Your task to perform on an android device: What's the weather? Image 0: 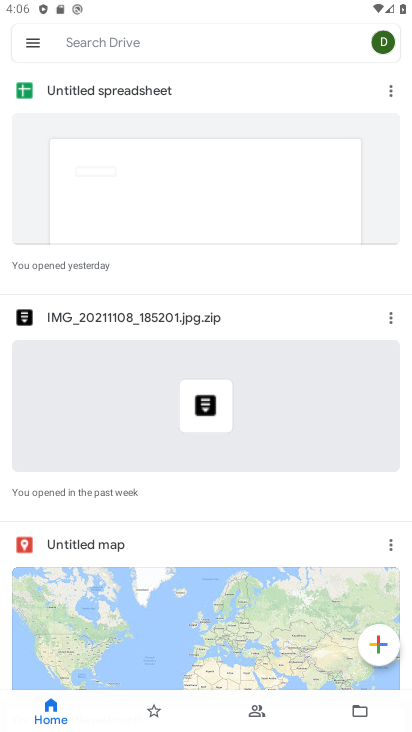
Step 0: press home button
Your task to perform on an android device: What's the weather? Image 1: 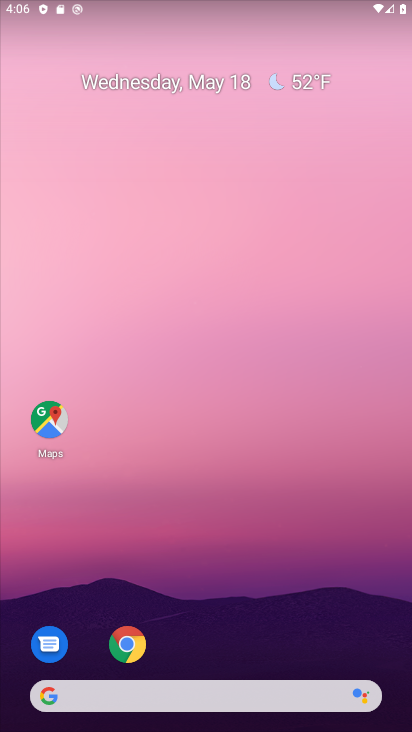
Step 1: click (245, 696)
Your task to perform on an android device: What's the weather? Image 2: 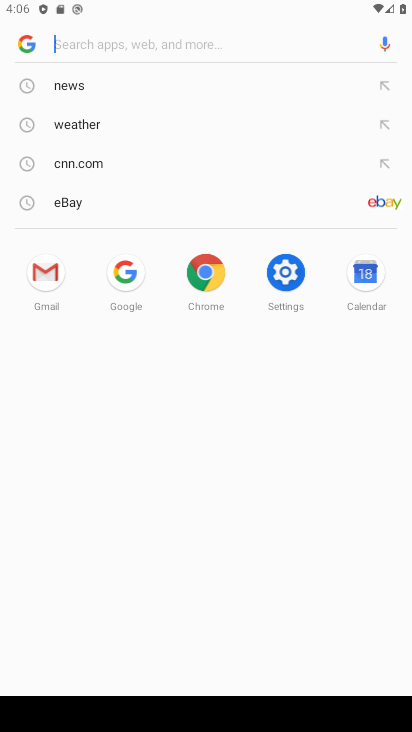
Step 2: click (56, 124)
Your task to perform on an android device: What's the weather? Image 3: 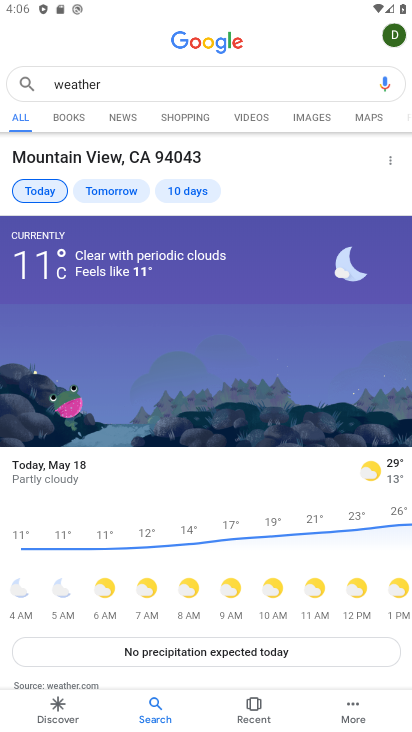
Step 3: press back button
Your task to perform on an android device: What's the weather? Image 4: 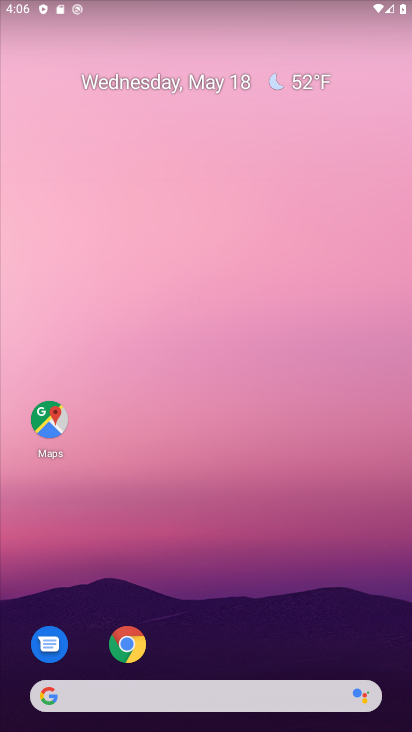
Step 4: click (154, 695)
Your task to perform on an android device: What's the weather? Image 5: 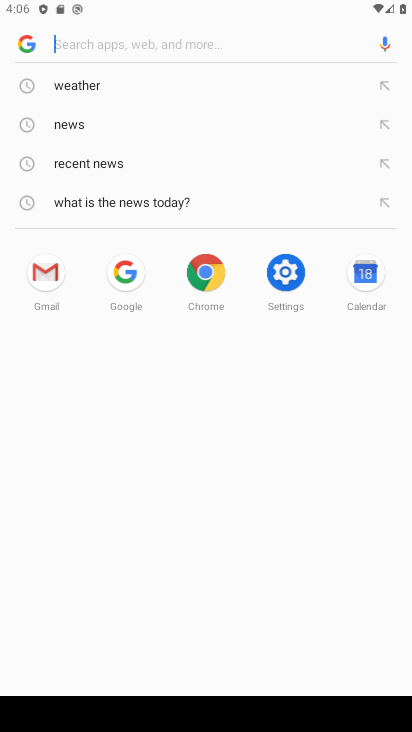
Step 5: click (107, 83)
Your task to perform on an android device: What's the weather? Image 6: 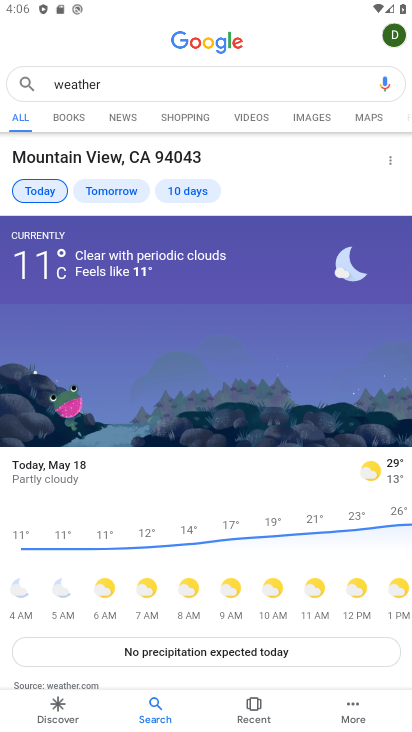
Step 6: task complete